Your task to perform on an android device: Search for seafood restaurants on Google Maps Image 0: 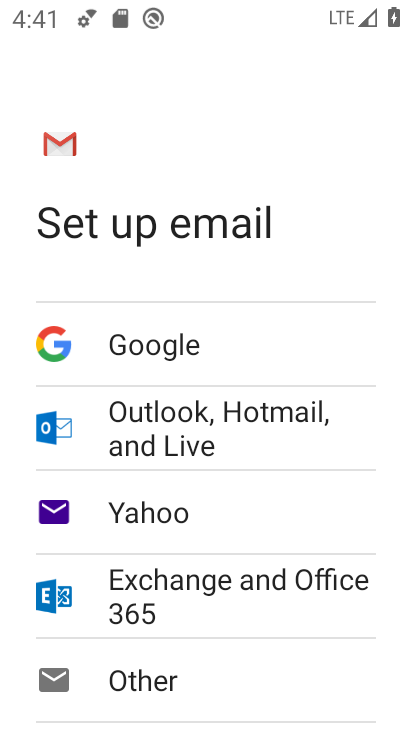
Step 0: press home button
Your task to perform on an android device: Search for seafood restaurants on Google Maps Image 1: 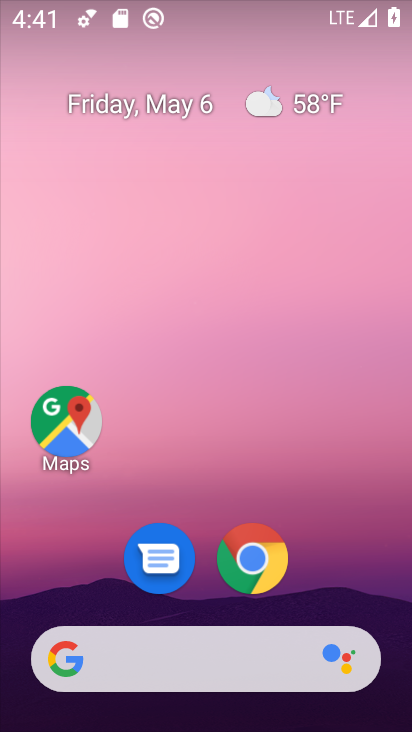
Step 1: drag from (278, 619) to (188, 16)
Your task to perform on an android device: Search for seafood restaurants on Google Maps Image 2: 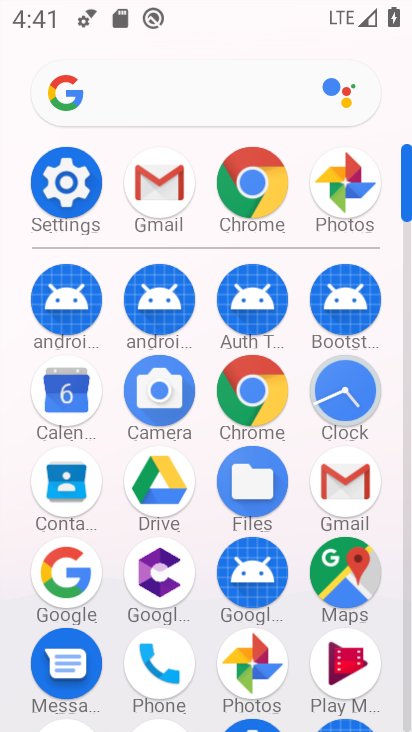
Step 2: click (346, 591)
Your task to perform on an android device: Search for seafood restaurants on Google Maps Image 3: 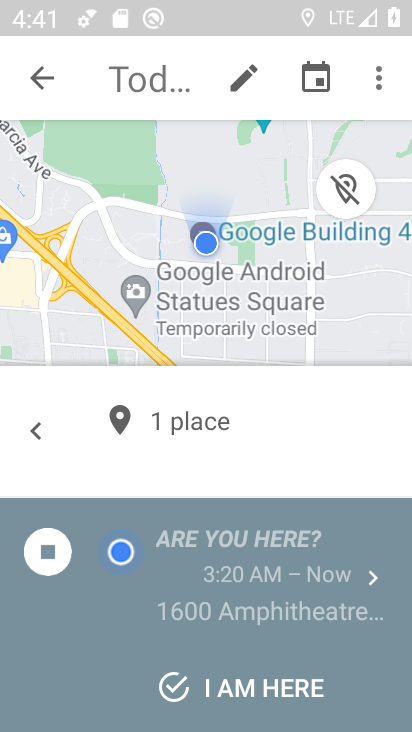
Step 3: press back button
Your task to perform on an android device: Search for seafood restaurants on Google Maps Image 4: 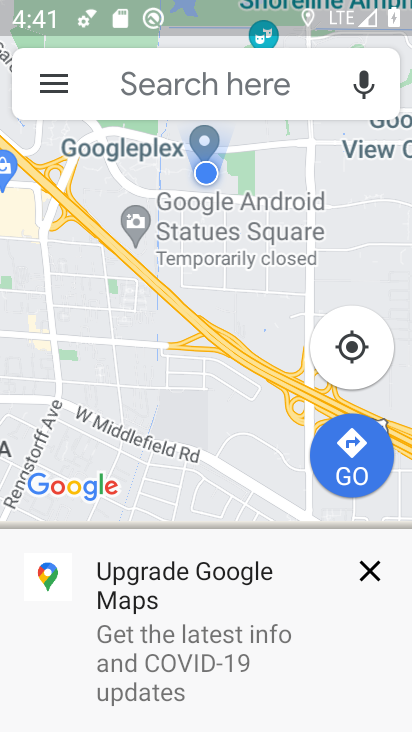
Step 4: click (249, 87)
Your task to perform on an android device: Search for seafood restaurants on Google Maps Image 5: 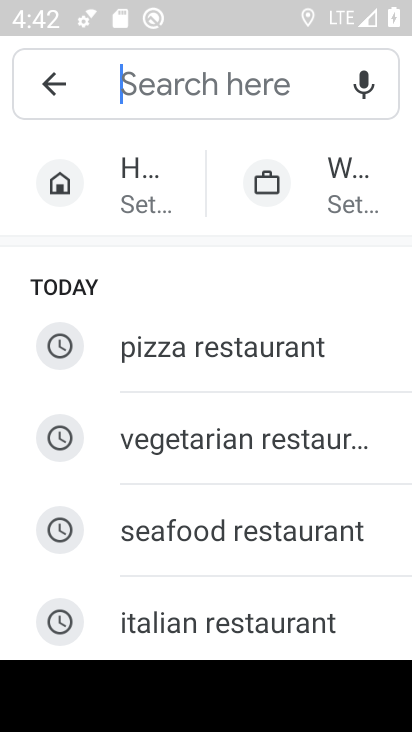
Step 5: type "seafood restaurant"
Your task to perform on an android device: Search for seafood restaurants on Google Maps Image 6: 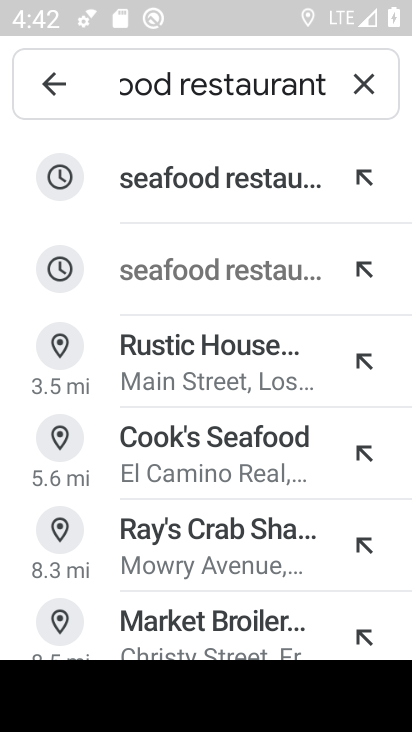
Step 6: click (222, 158)
Your task to perform on an android device: Search for seafood restaurants on Google Maps Image 7: 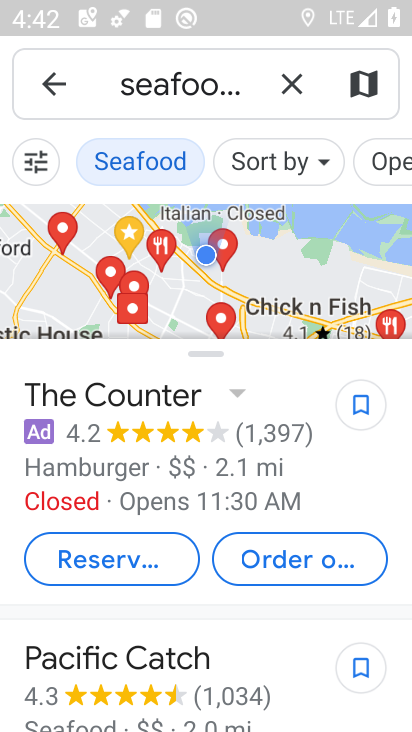
Step 7: task complete